Your task to perform on an android device: Open privacy settings Image 0: 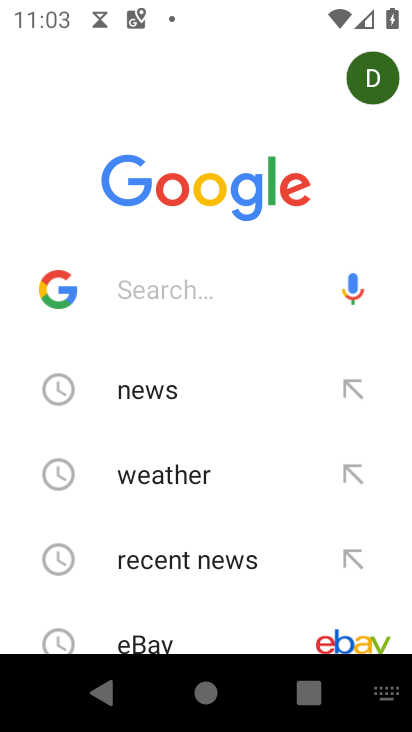
Step 0: press home button
Your task to perform on an android device: Open privacy settings Image 1: 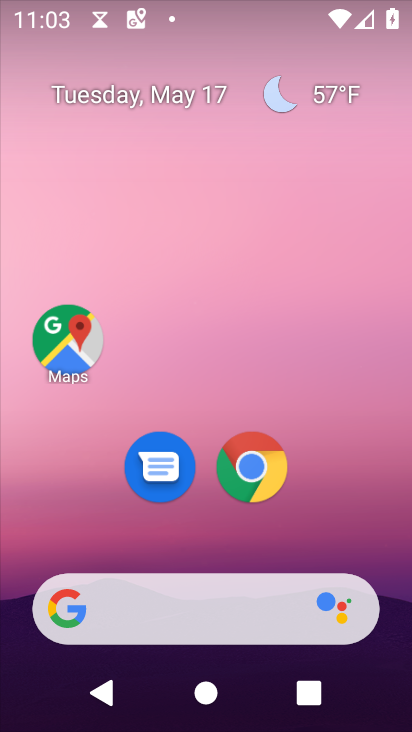
Step 1: drag from (179, 485) to (197, 191)
Your task to perform on an android device: Open privacy settings Image 2: 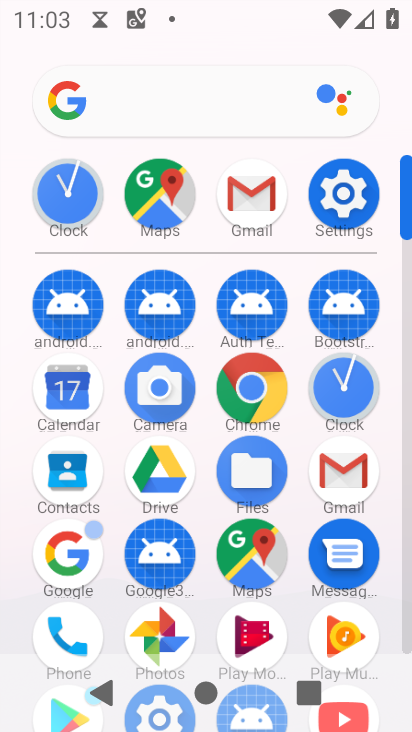
Step 2: click (345, 193)
Your task to perform on an android device: Open privacy settings Image 3: 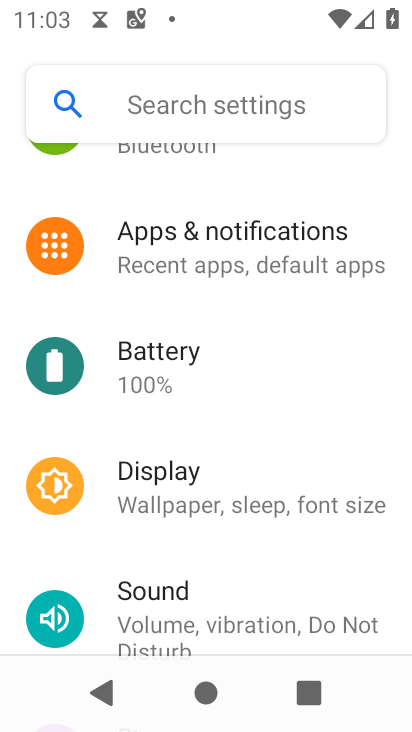
Step 3: drag from (200, 618) to (200, 220)
Your task to perform on an android device: Open privacy settings Image 4: 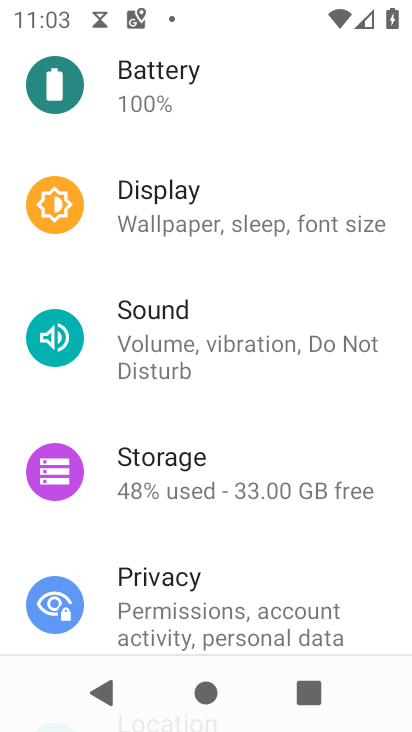
Step 4: click (181, 600)
Your task to perform on an android device: Open privacy settings Image 5: 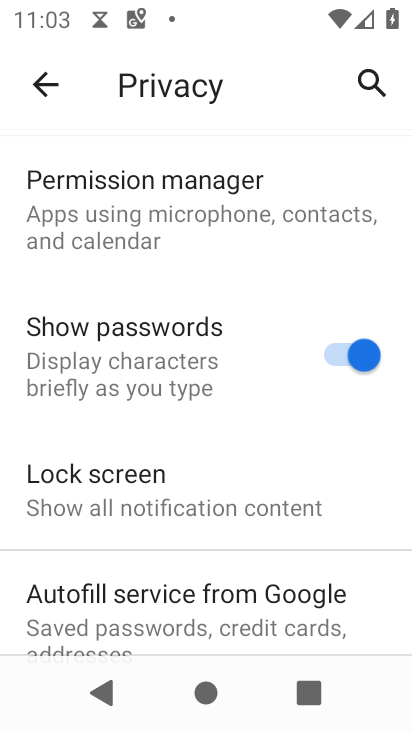
Step 5: drag from (223, 650) to (228, 198)
Your task to perform on an android device: Open privacy settings Image 6: 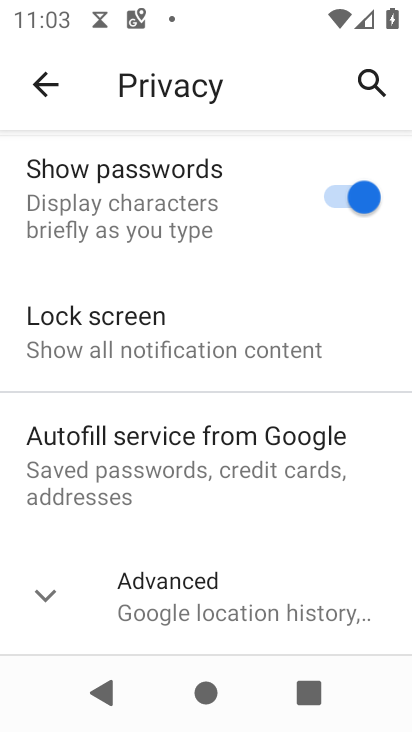
Step 6: click (132, 591)
Your task to perform on an android device: Open privacy settings Image 7: 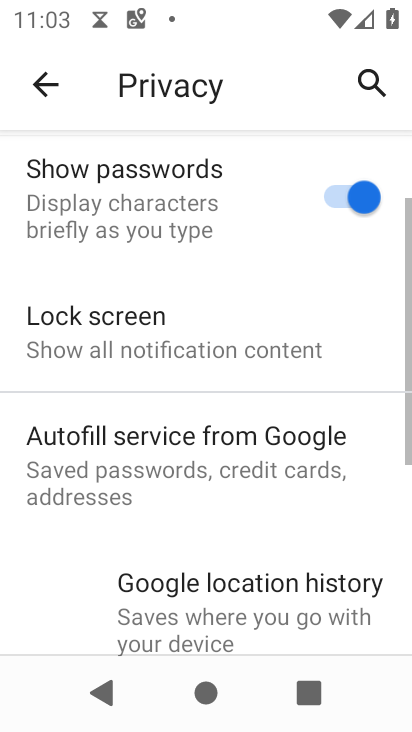
Step 7: task complete